Your task to perform on an android device: Go to Google Image 0: 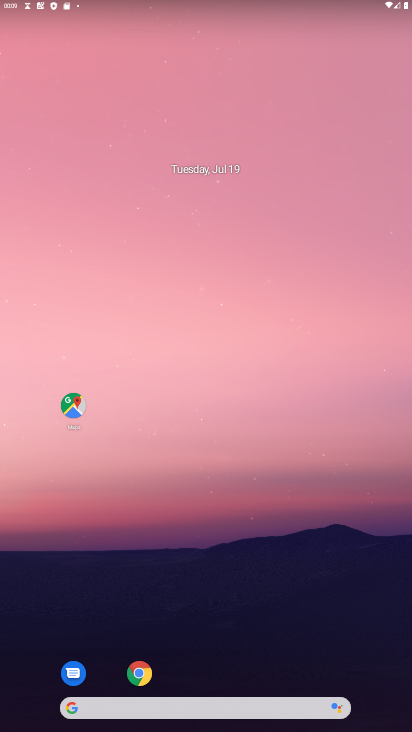
Step 0: drag from (338, 664) to (261, 400)
Your task to perform on an android device: Go to Google Image 1: 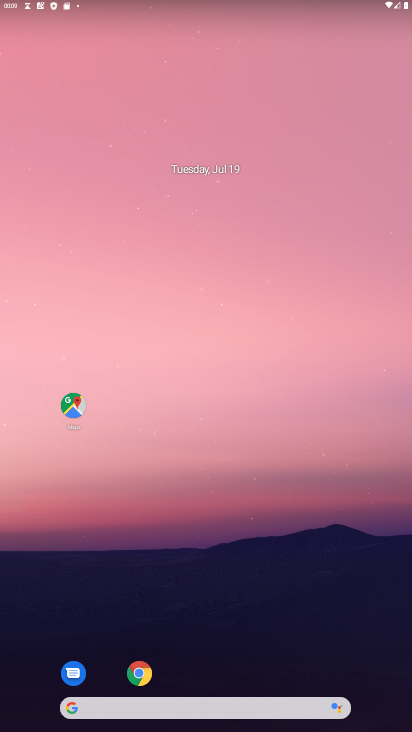
Step 1: drag from (217, 667) to (221, 578)
Your task to perform on an android device: Go to Google Image 2: 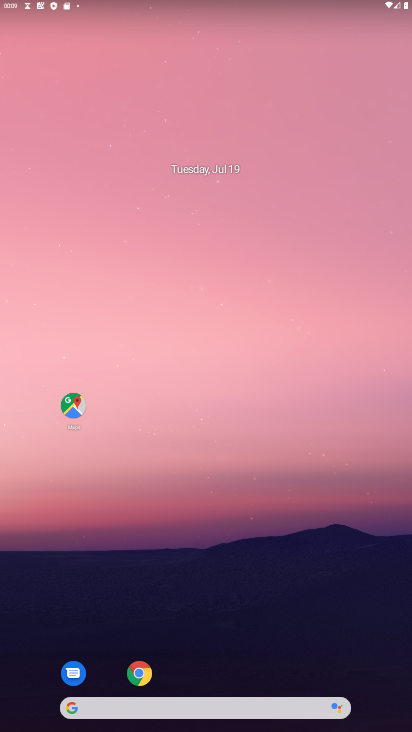
Step 2: drag from (272, 693) to (263, 164)
Your task to perform on an android device: Go to Google Image 3: 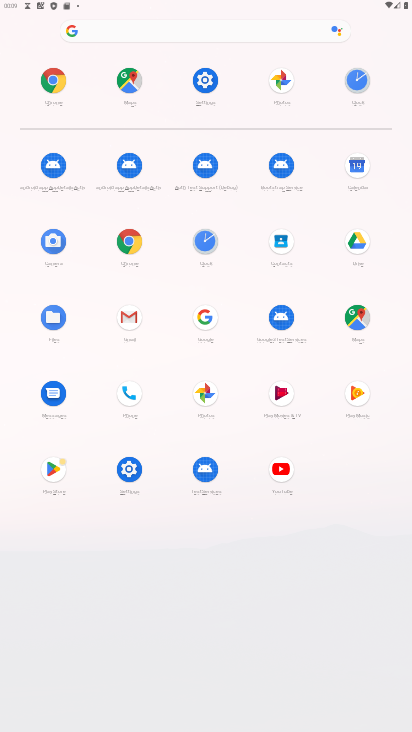
Step 3: click (209, 319)
Your task to perform on an android device: Go to Google Image 4: 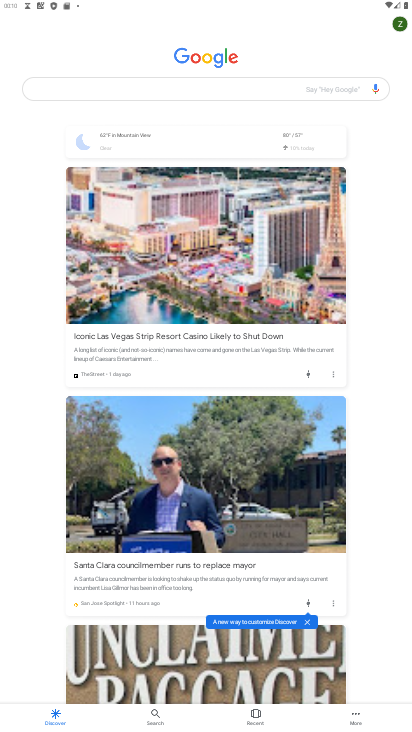
Step 4: task complete